Your task to perform on an android device: delete a single message in the gmail app Image 0: 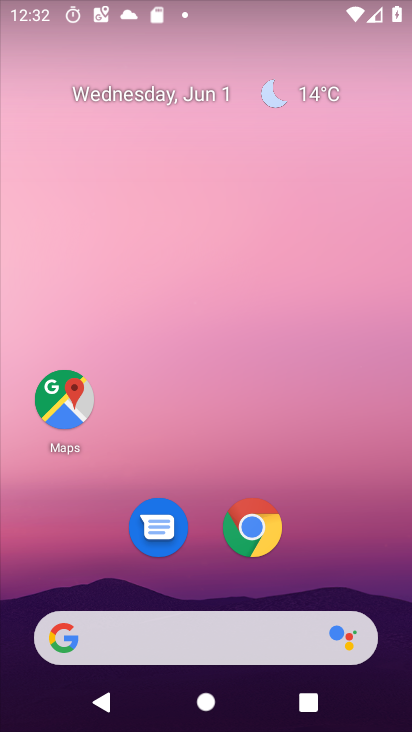
Step 0: drag from (350, 583) to (405, 13)
Your task to perform on an android device: delete a single message in the gmail app Image 1: 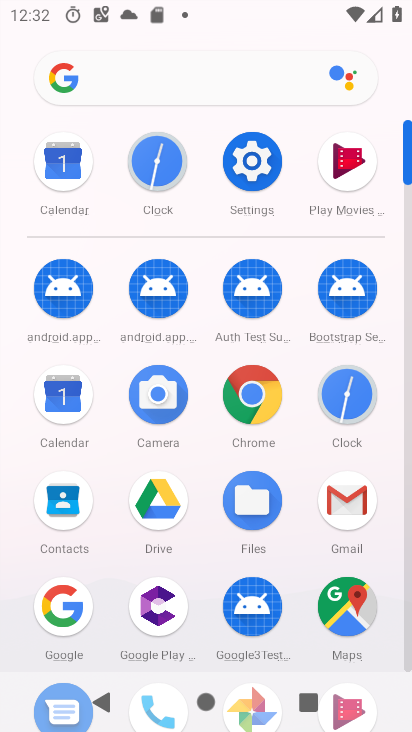
Step 1: click (332, 504)
Your task to perform on an android device: delete a single message in the gmail app Image 2: 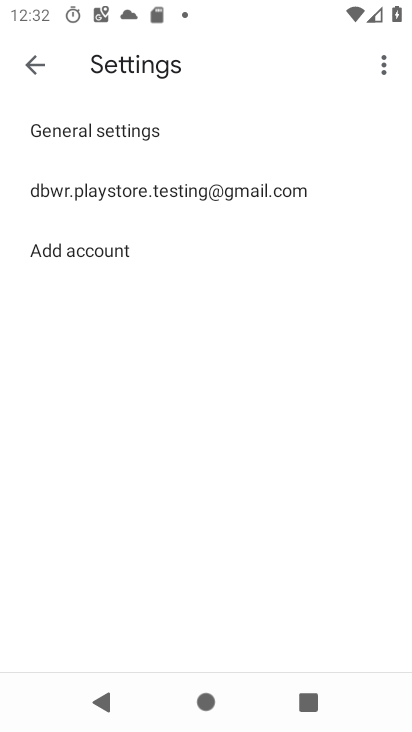
Step 2: click (34, 64)
Your task to perform on an android device: delete a single message in the gmail app Image 3: 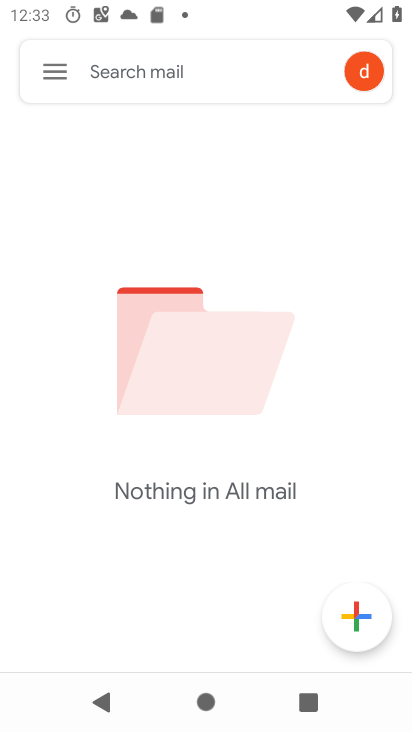
Step 3: task complete